Your task to perform on an android device: What is the price of a 12' ladder at Home Depot? Image 0: 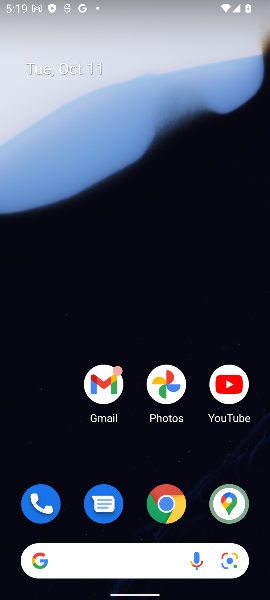
Step 0: click (88, 561)
Your task to perform on an android device: What is the price of a 12' ladder at Home Depot? Image 1: 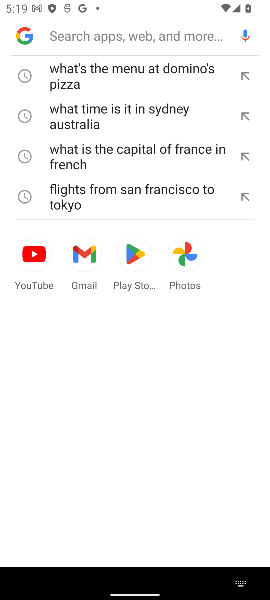
Step 1: click (61, 37)
Your task to perform on an android device: What is the price of a 12' ladder at Home Depot? Image 2: 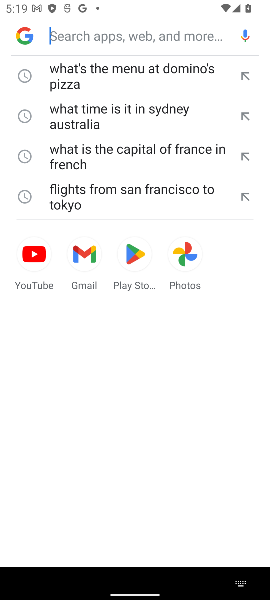
Step 2: type "What is the price of a 12' ladder at Home Depot?"
Your task to perform on an android device: What is the price of a 12' ladder at Home Depot? Image 3: 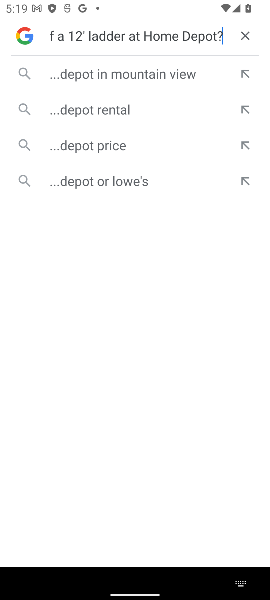
Step 3: click (247, 33)
Your task to perform on an android device: What is the price of a 12' ladder at Home Depot? Image 4: 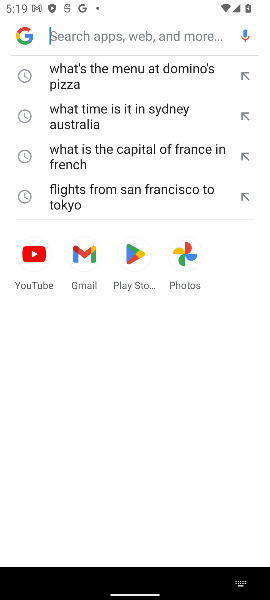
Step 4: click (94, 36)
Your task to perform on an android device: What is the price of a 12' ladder at Home Depot? Image 5: 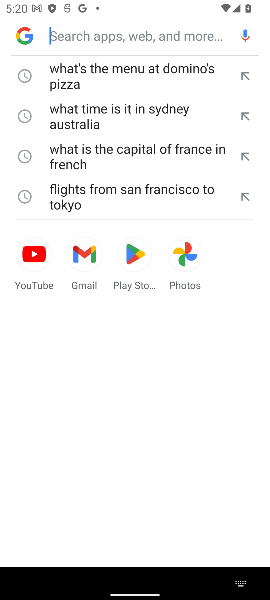
Step 5: type "price of a 12' ladder at Home Depot"
Your task to perform on an android device: What is the price of a 12' ladder at Home Depot? Image 6: 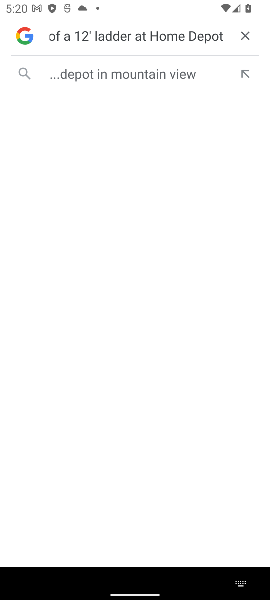
Step 6: click (115, 87)
Your task to perform on an android device: What is the price of a 12' ladder at Home Depot? Image 7: 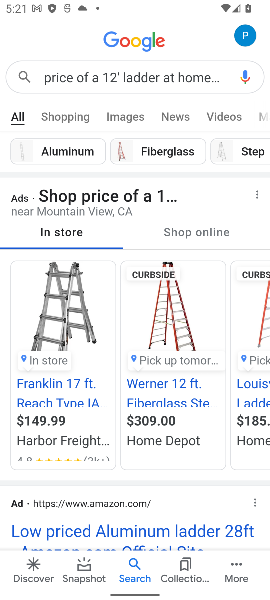
Step 7: task complete